Your task to perform on an android device: turn pop-ups off in chrome Image 0: 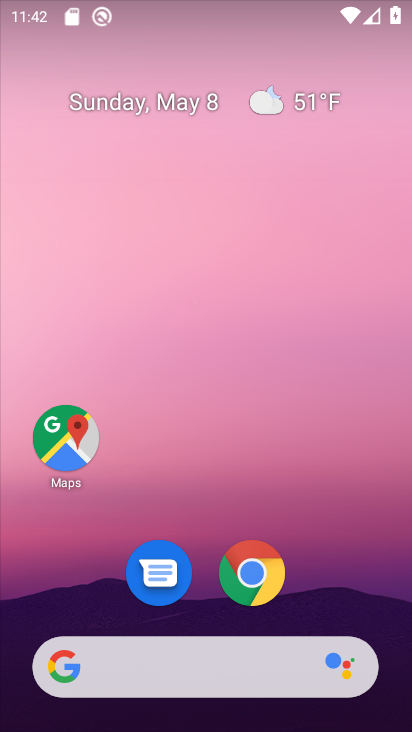
Step 0: click (257, 576)
Your task to perform on an android device: turn pop-ups off in chrome Image 1: 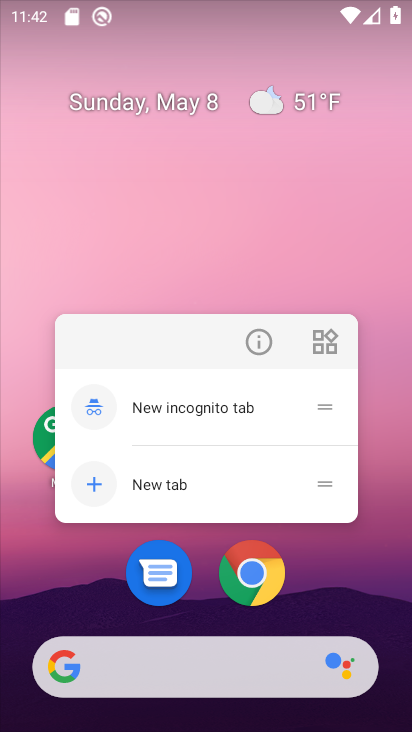
Step 1: click (257, 576)
Your task to perform on an android device: turn pop-ups off in chrome Image 2: 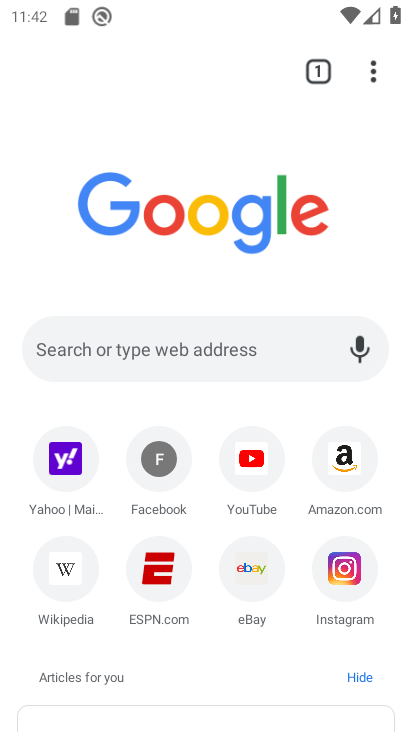
Step 2: click (371, 72)
Your task to perform on an android device: turn pop-ups off in chrome Image 3: 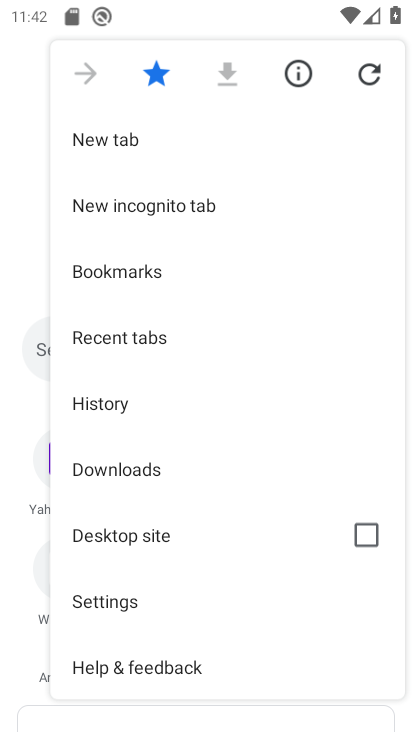
Step 3: drag from (147, 642) to (92, 308)
Your task to perform on an android device: turn pop-ups off in chrome Image 4: 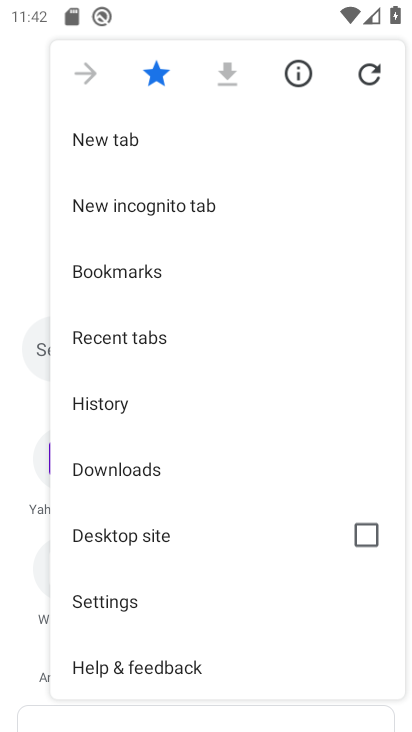
Step 4: click (103, 599)
Your task to perform on an android device: turn pop-ups off in chrome Image 5: 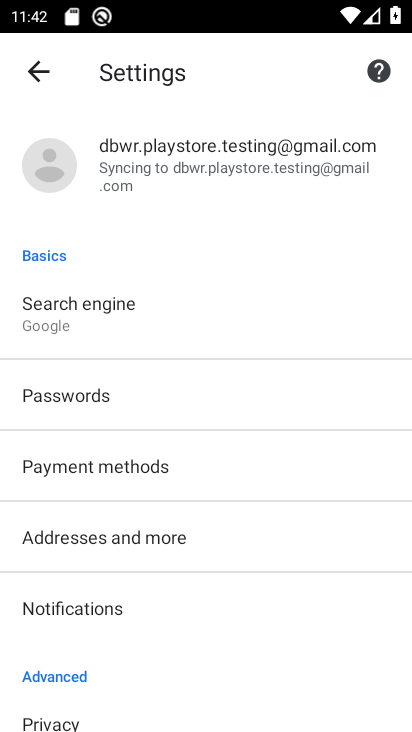
Step 5: drag from (134, 703) to (123, 274)
Your task to perform on an android device: turn pop-ups off in chrome Image 6: 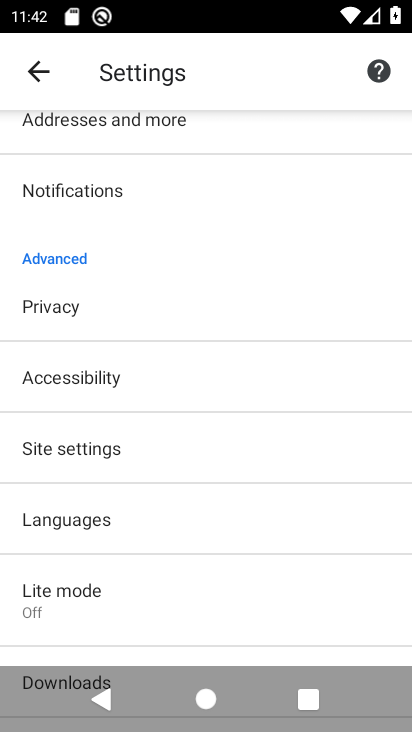
Step 6: click (69, 433)
Your task to perform on an android device: turn pop-ups off in chrome Image 7: 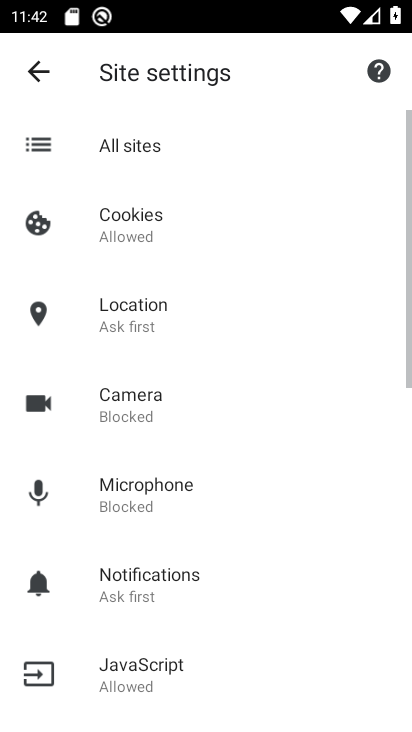
Step 7: drag from (135, 689) to (127, 227)
Your task to perform on an android device: turn pop-ups off in chrome Image 8: 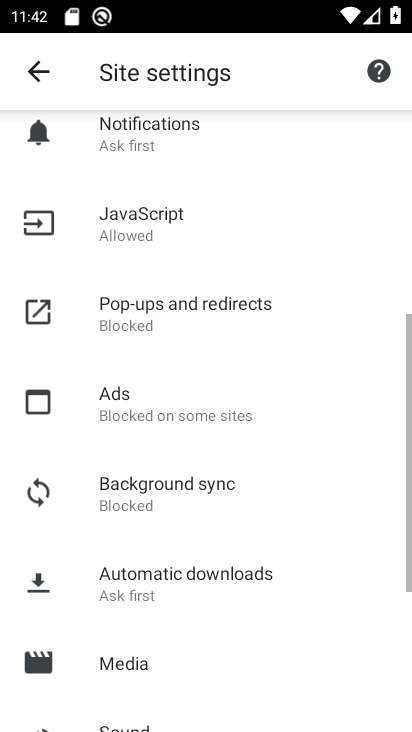
Step 8: click (160, 326)
Your task to perform on an android device: turn pop-ups off in chrome Image 9: 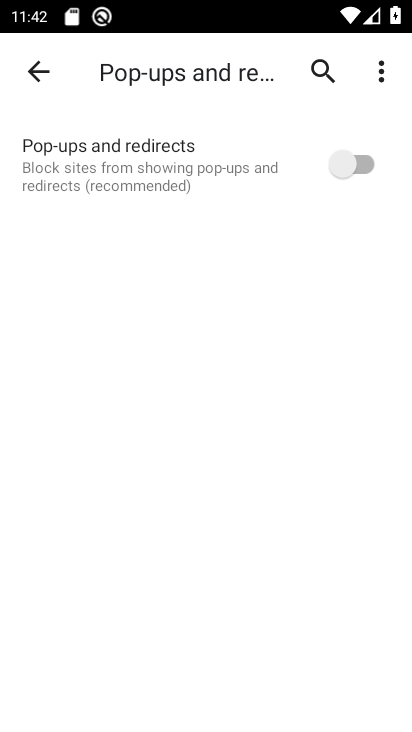
Step 9: task complete